Your task to perform on an android device: What's the weather going to be tomorrow? Image 0: 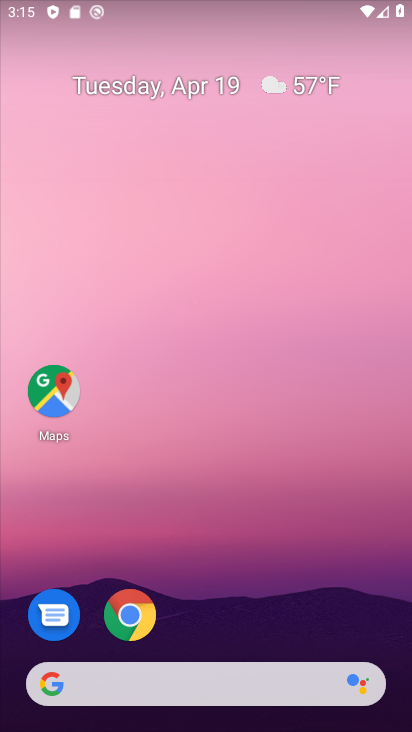
Step 0: drag from (199, 513) to (171, 57)
Your task to perform on an android device: What's the weather going to be tomorrow? Image 1: 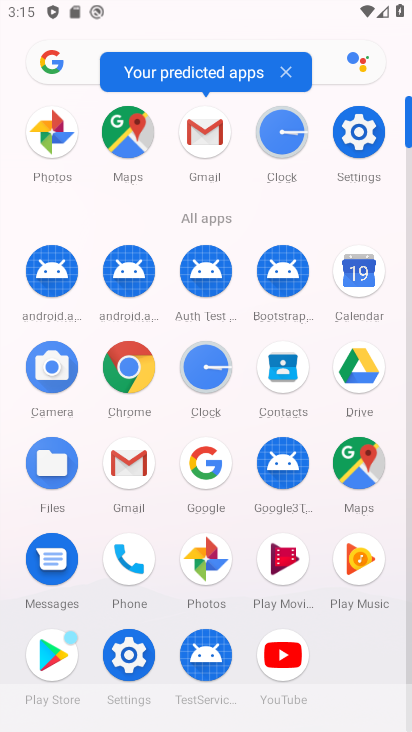
Step 1: click (201, 466)
Your task to perform on an android device: What's the weather going to be tomorrow? Image 2: 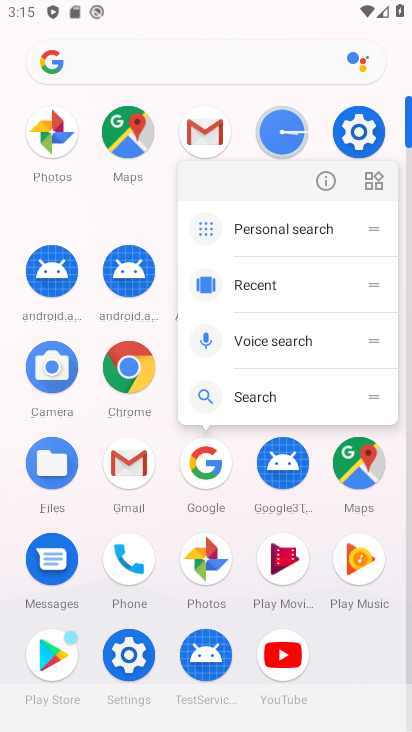
Step 2: click (198, 444)
Your task to perform on an android device: What's the weather going to be tomorrow? Image 3: 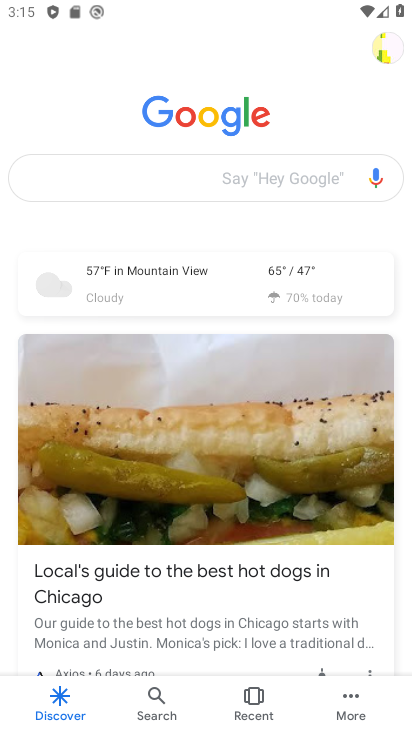
Step 3: click (130, 283)
Your task to perform on an android device: What's the weather going to be tomorrow? Image 4: 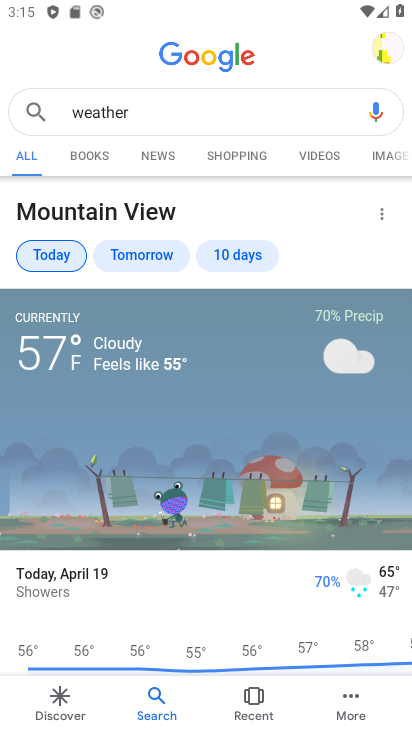
Step 4: click (147, 251)
Your task to perform on an android device: What's the weather going to be tomorrow? Image 5: 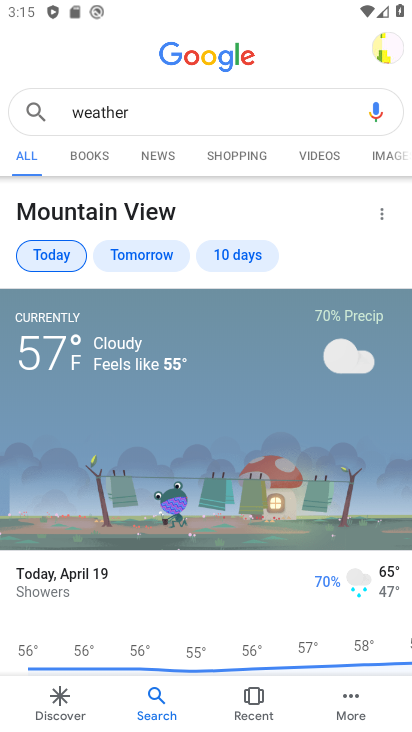
Step 5: click (147, 251)
Your task to perform on an android device: What's the weather going to be tomorrow? Image 6: 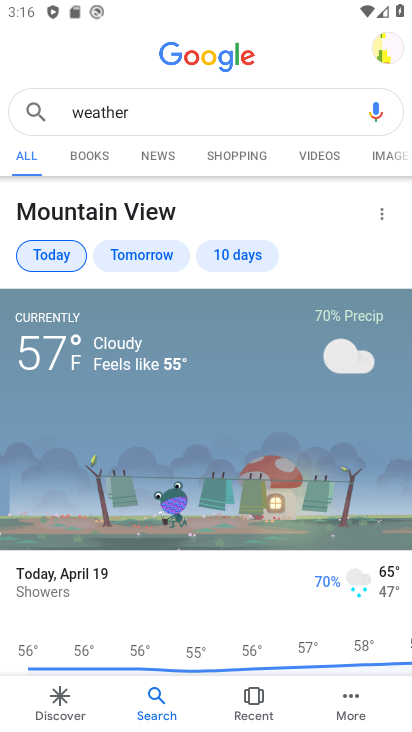
Step 6: click (147, 251)
Your task to perform on an android device: What's the weather going to be tomorrow? Image 7: 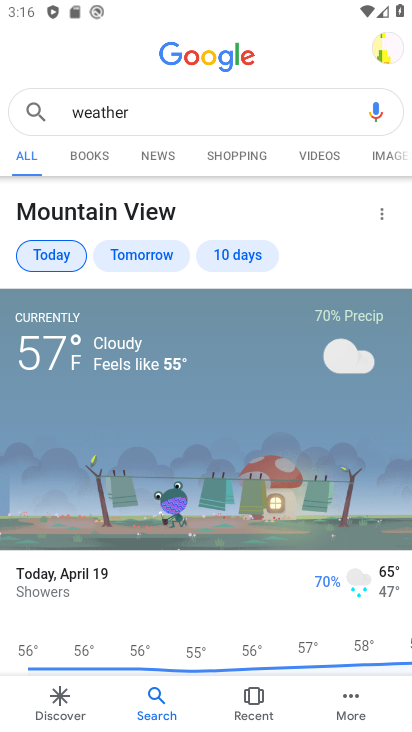
Step 7: click (147, 251)
Your task to perform on an android device: What's the weather going to be tomorrow? Image 8: 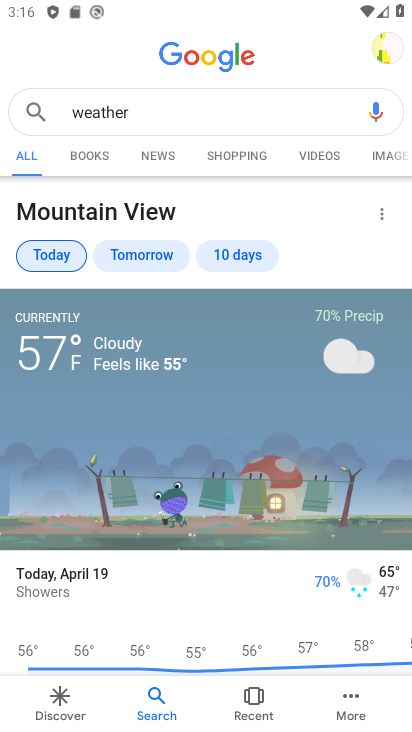
Step 8: task complete